Your task to perform on an android device: stop showing notifications on the lock screen Image 0: 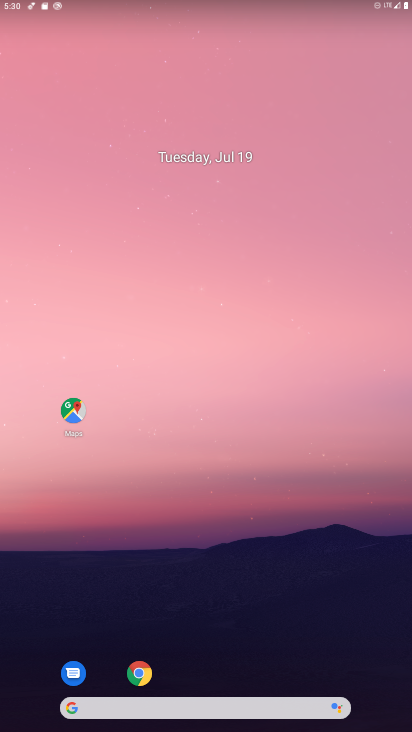
Step 0: drag from (197, 672) to (176, 40)
Your task to perform on an android device: stop showing notifications on the lock screen Image 1: 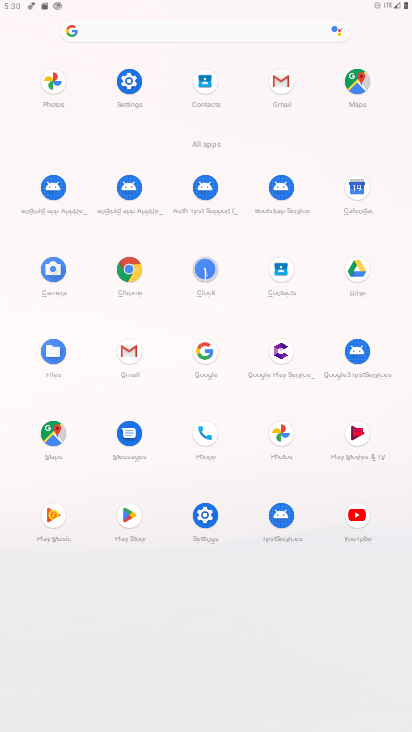
Step 1: click (125, 76)
Your task to perform on an android device: stop showing notifications on the lock screen Image 2: 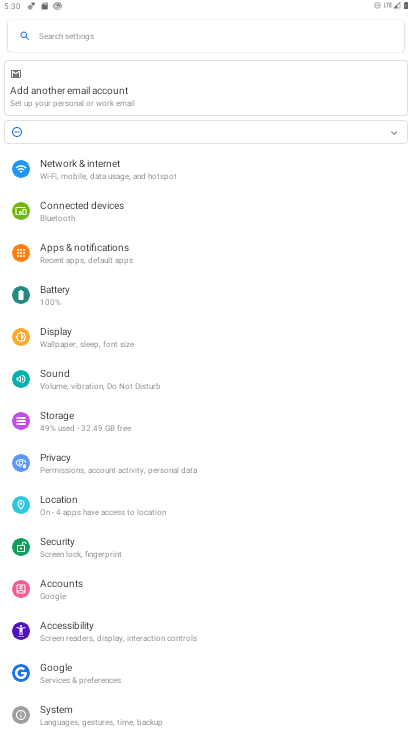
Step 2: click (115, 246)
Your task to perform on an android device: stop showing notifications on the lock screen Image 3: 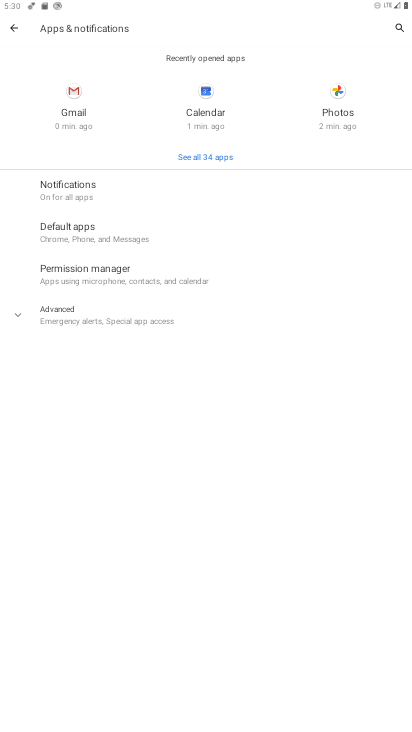
Step 3: click (93, 189)
Your task to perform on an android device: stop showing notifications on the lock screen Image 4: 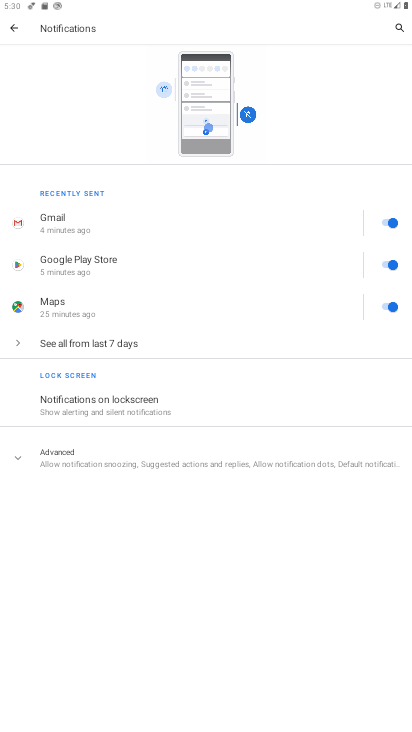
Step 4: click (14, 455)
Your task to perform on an android device: stop showing notifications on the lock screen Image 5: 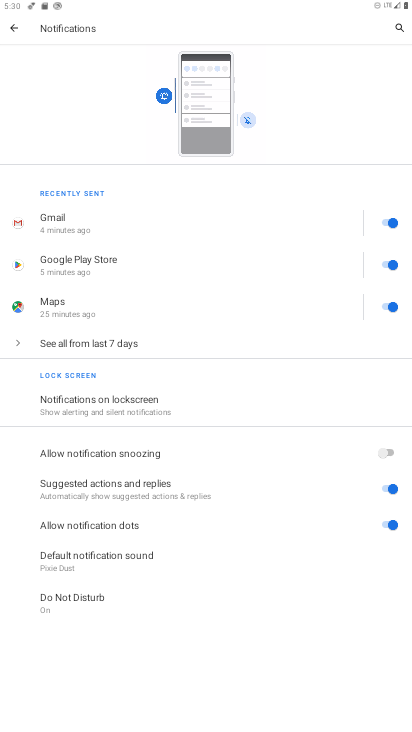
Step 5: click (76, 405)
Your task to perform on an android device: stop showing notifications on the lock screen Image 6: 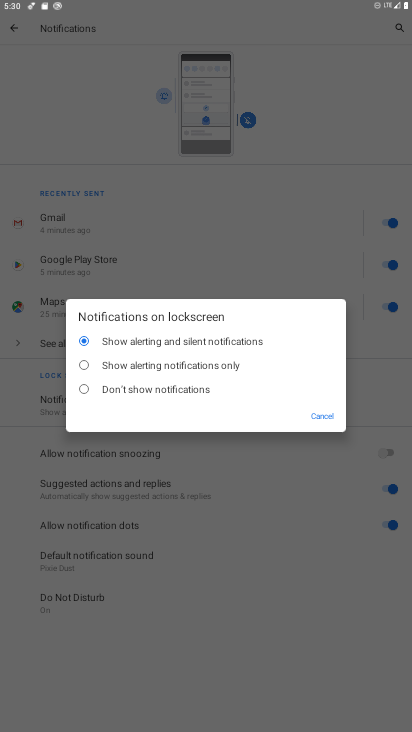
Step 6: click (82, 384)
Your task to perform on an android device: stop showing notifications on the lock screen Image 7: 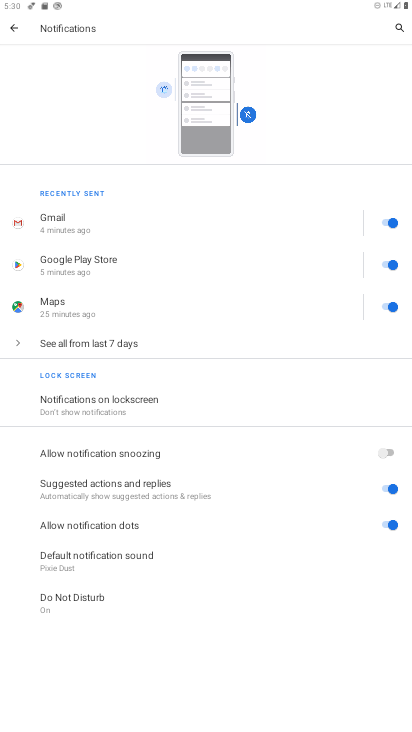
Step 7: task complete